Your task to perform on an android device: Go to settings Image 0: 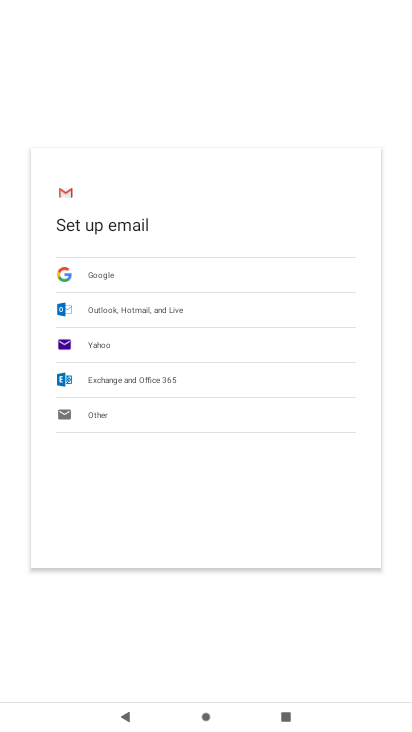
Step 0: press home button
Your task to perform on an android device: Go to settings Image 1: 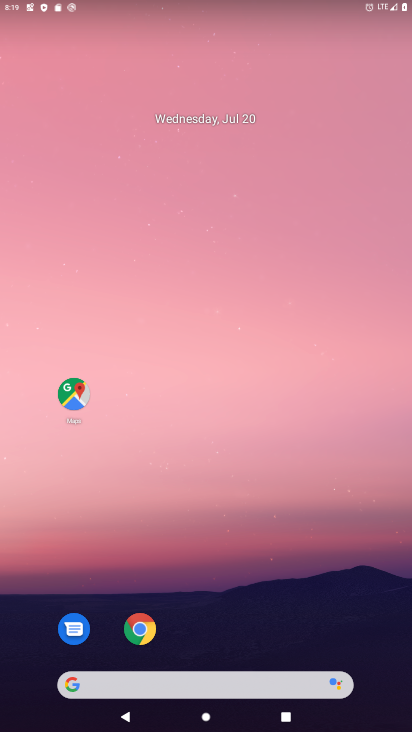
Step 1: drag from (149, 335) to (159, 97)
Your task to perform on an android device: Go to settings Image 2: 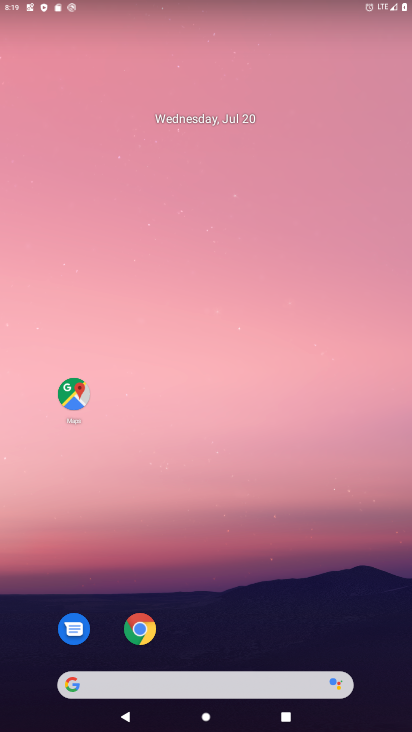
Step 2: drag from (192, 529) to (235, 75)
Your task to perform on an android device: Go to settings Image 3: 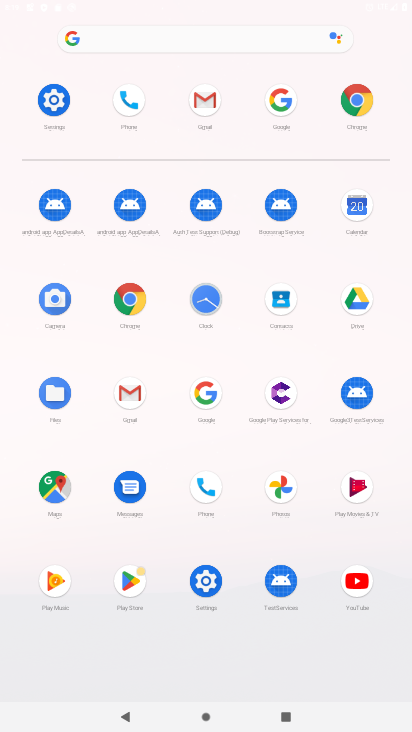
Step 3: click (46, 104)
Your task to perform on an android device: Go to settings Image 4: 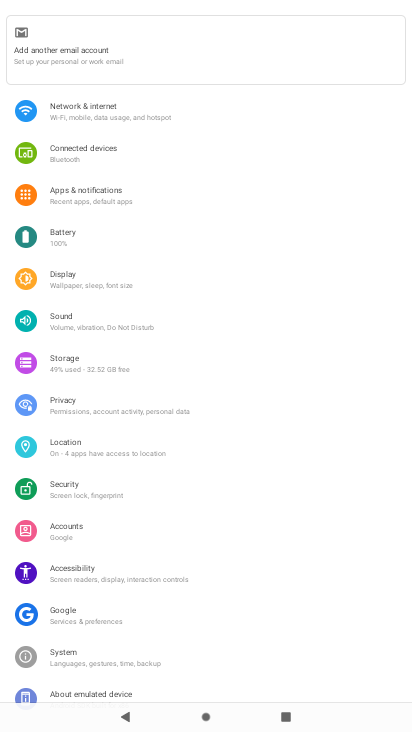
Step 4: task complete